Your task to perform on an android device: allow cookies in the chrome app Image 0: 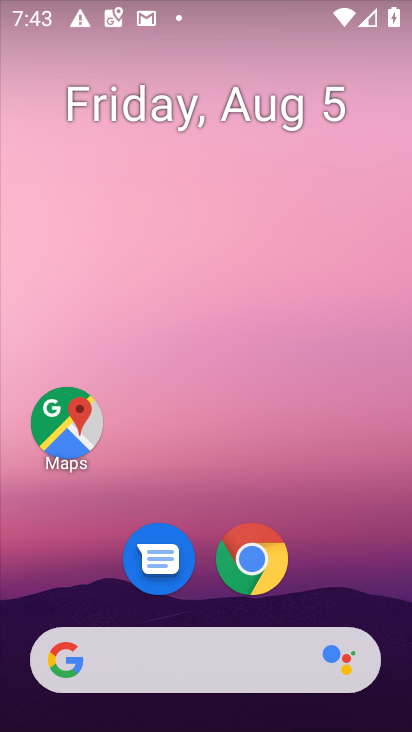
Step 0: click (268, 564)
Your task to perform on an android device: allow cookies in the chrome app Image 1: 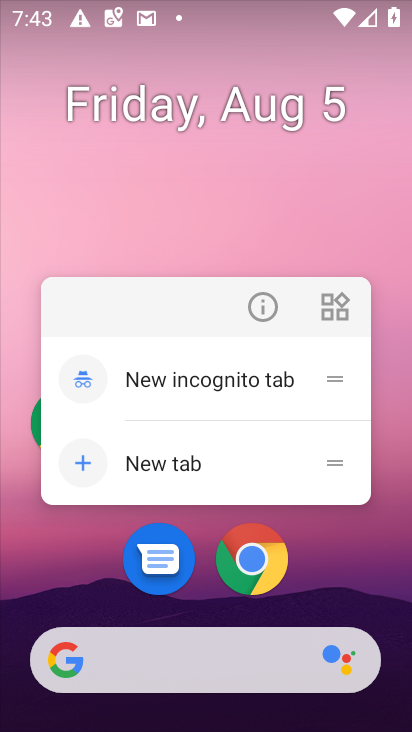
Step 1: click (272, 560)
Your task to perform on an android device: allow cookies in the chrome app Image 2: 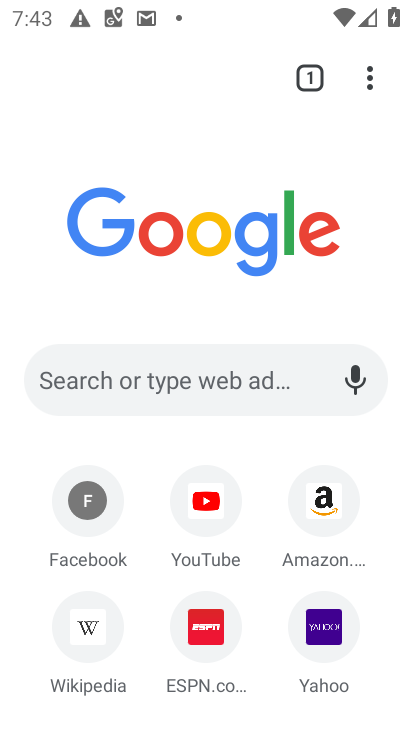
Step 2: click (359, 68)
Your task to perform on an android device: allow cookies in the chrome app Image 3: 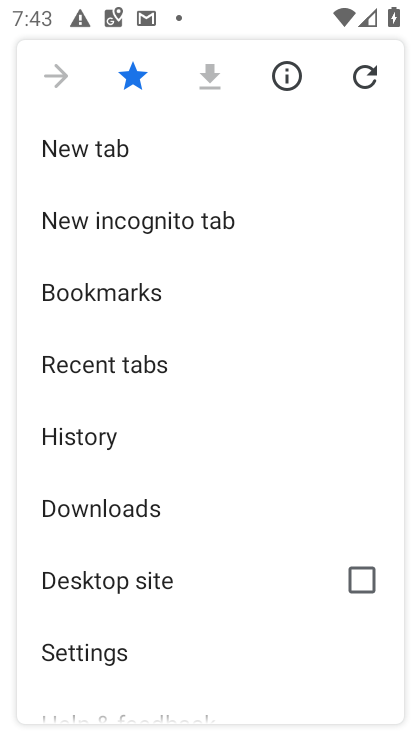
Step 3: click (122, 657)
Your task to perform on an android device: allow cookies in the chrome app Image 4: 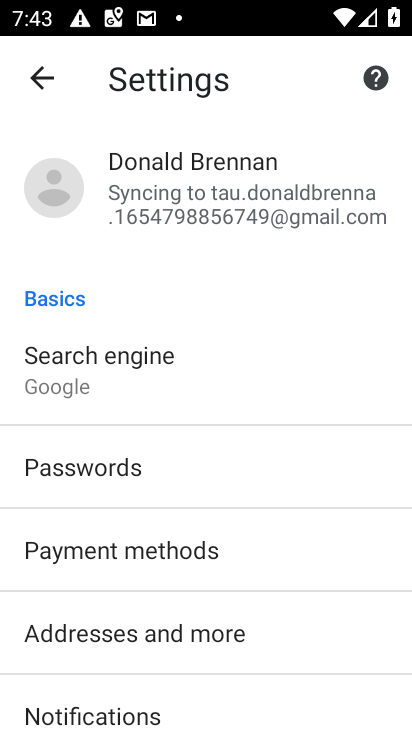
Step 4: drag from (138, 603) to (161, 243)
Your task to perform on an android device: allow cookies in the chrome app Image 5: 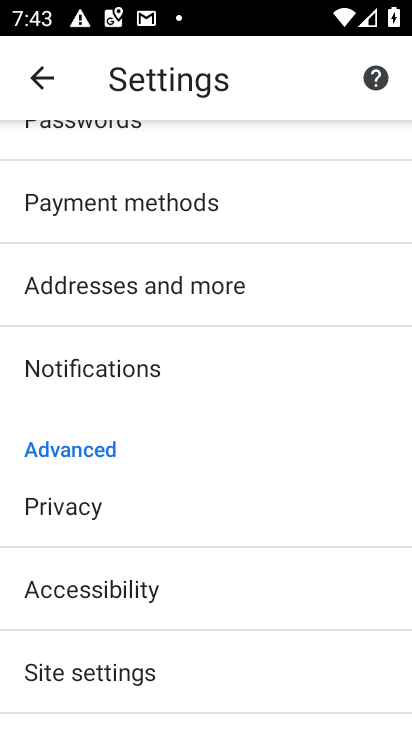
Step 5: drag from (135, 549) to (153, 220)
Your task to perform on an android device: allow cookies in the chrome app Image 6: 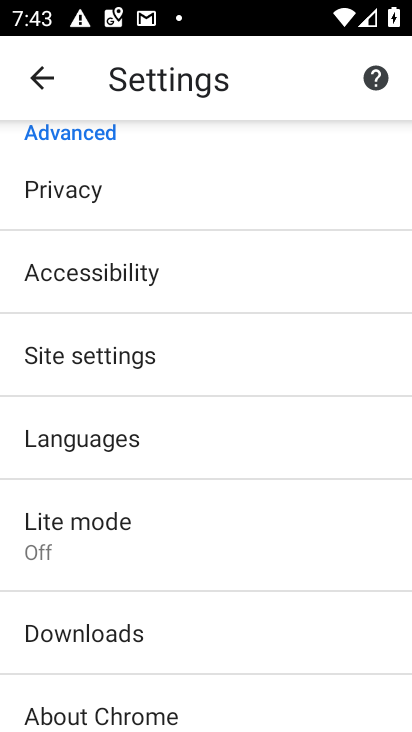
Step 6: click (83, 358)
Your task to perform on an android device: allow cookies in the chrome app Image 7: 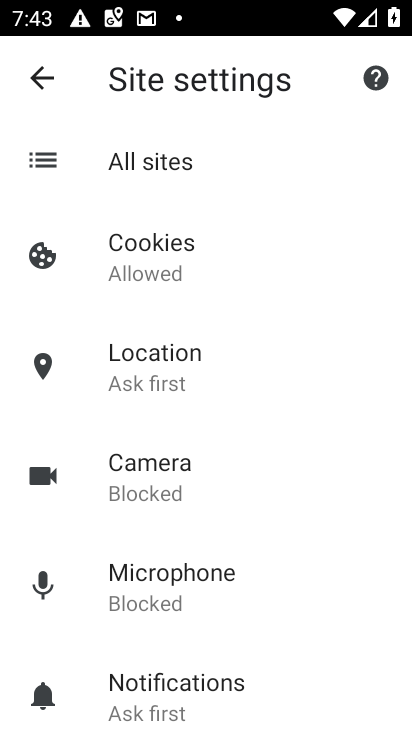
Step 7: click (166, 274)
Your task to perform on an android device: allow cookies in the chrome app Image 8: 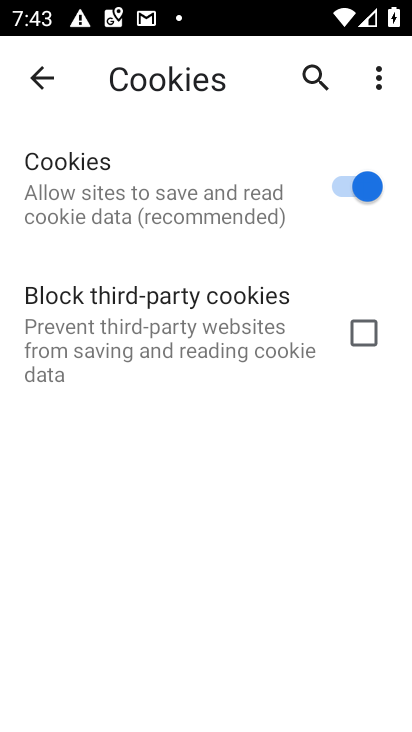
Step 8: task complete